Your task to perform on an android device: visit the assistant section in the google photos Image 0: 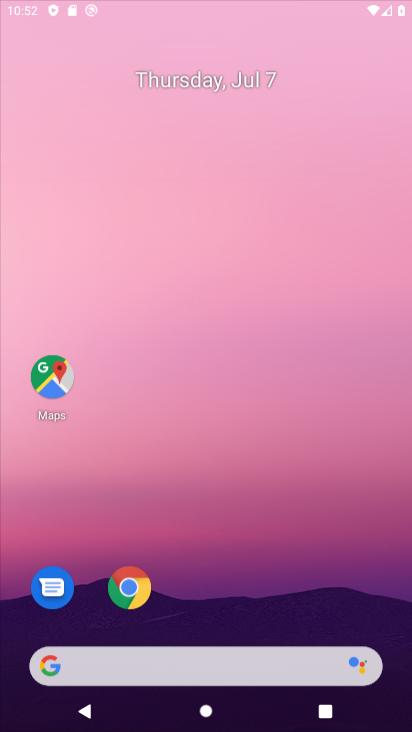
Step 0: click (353, 54)
Your task to perform on an android device: visit the assistant section in the google photos Image 1: 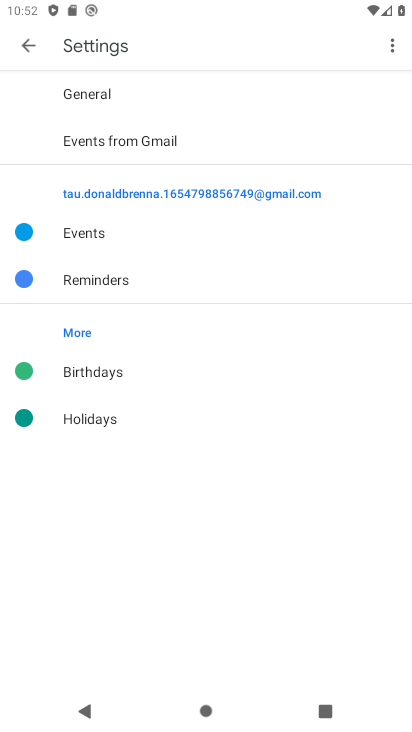
Step 1: drag from (216, 558) to (276, 342)
Your task to perform on an android device: visit the assistant section in the google photos Image 2: 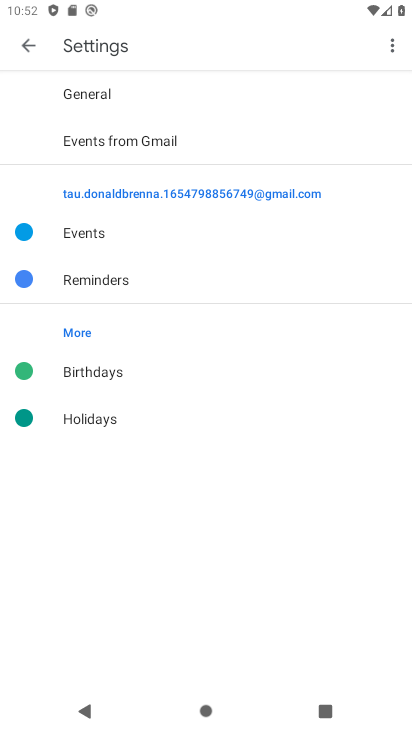
Step 2: drag from (257, 431) to (281, 229)
Your task to perform on an android device: visit the assistant section in the google photos Image 3: 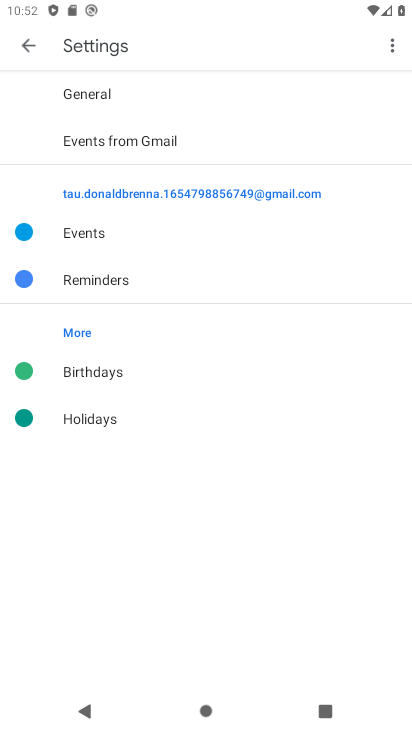
Step 3: press home button
Your task to perform on an android device: visit the assistant section in the google photos Image 4: 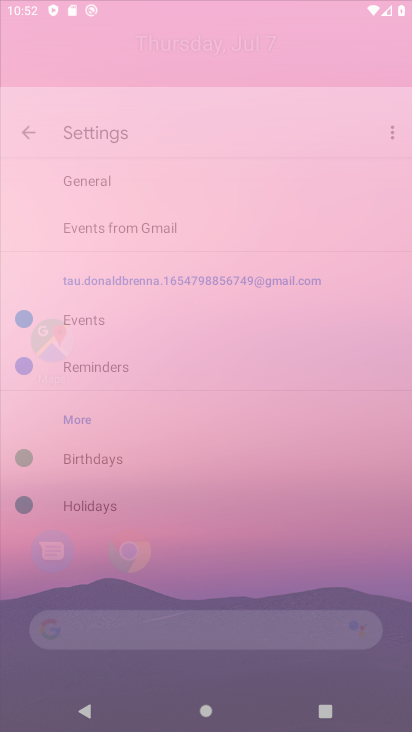
Step 4: drag from (217, 567) to (295, 34)
Your task to perform on an android device: visit the assistant section in the google photos Image 5: 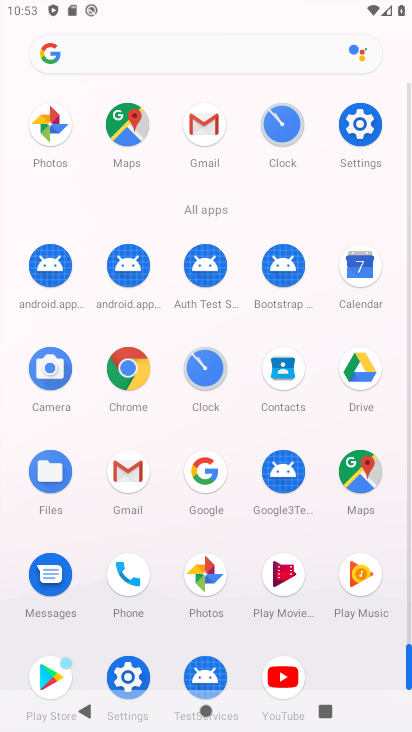
Step 5: click (203, 583)
Your task to perform on an android device: visit the assistant section in the google photos Image 6: 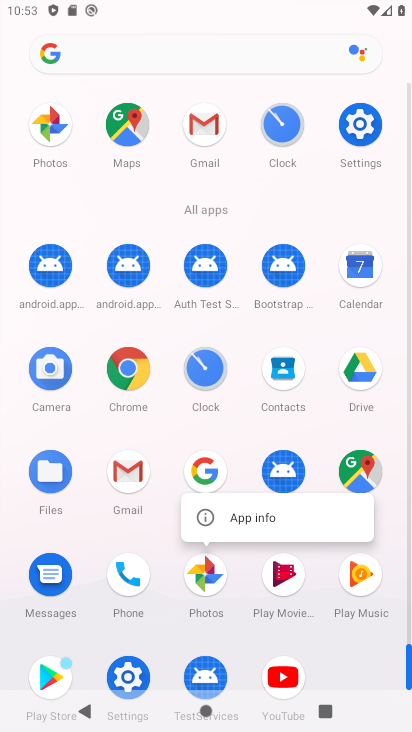
Step 6: click (273, 518)
Your task to perform on an android device: visit the assistant section in the google photos Image 7: 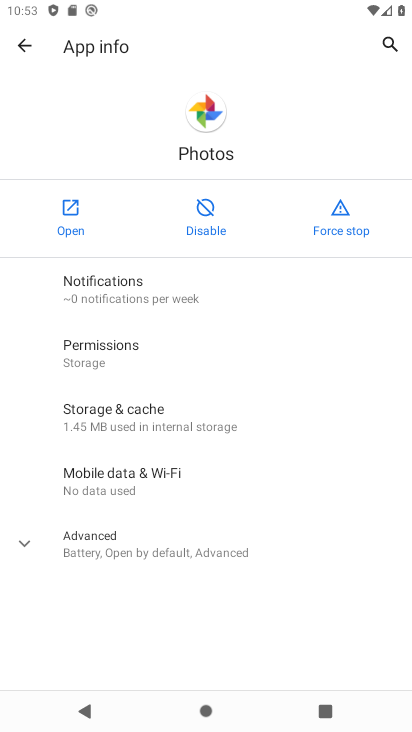
Step 7: click (65, 223)
Your task to perform on an android device: visit the assistant section in the google photos Image 8: 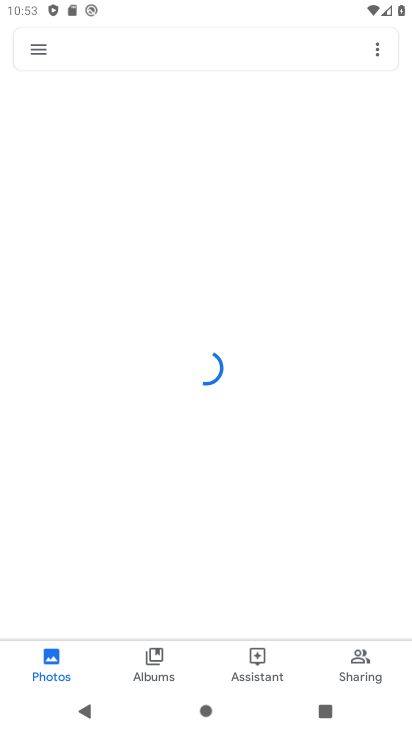
Step 8: drag from (238, 500) to (236, 317)
Your task to perform on an android device: visit the assistant section in the google photos Image 9: 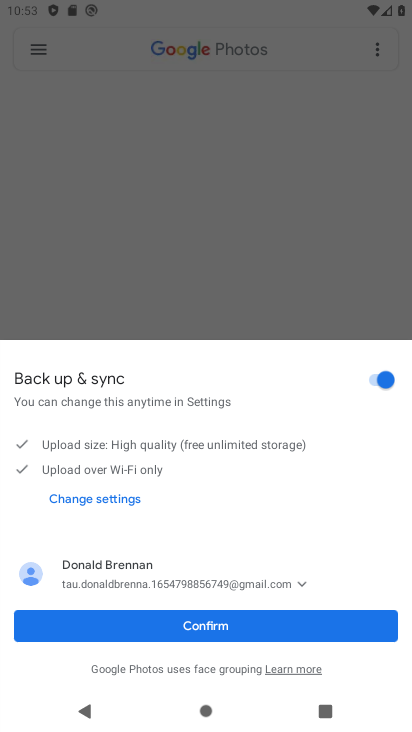
Step 9: click (279, 248)
Your task to perform on an android device: visit the assistant section in the google photos Image 10: 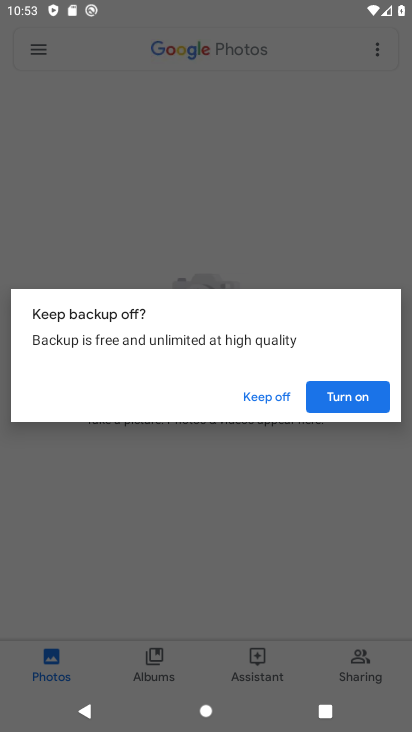
Step 10: click (258, 399)
Your task to perform on an android device: visit the assistant section in the google photos Image 11: 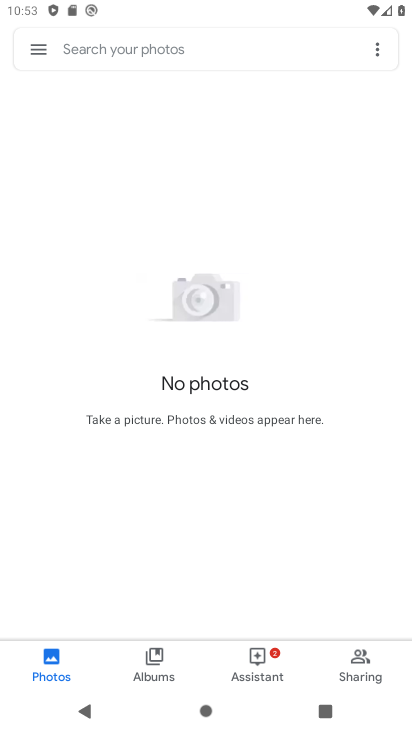
Step 11: click (260, 675)
Your task to perform on an android device: visit the assistant section in the google photos Image 12: 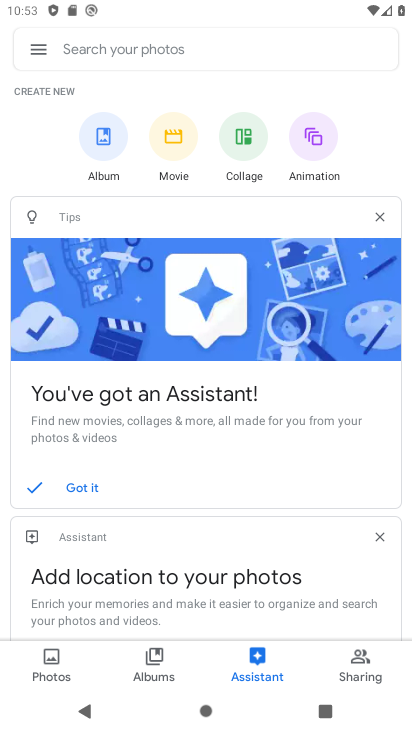
Step 12: task complete